Your task to perform on an android device: Show me popular games on the Play Store Image 0: 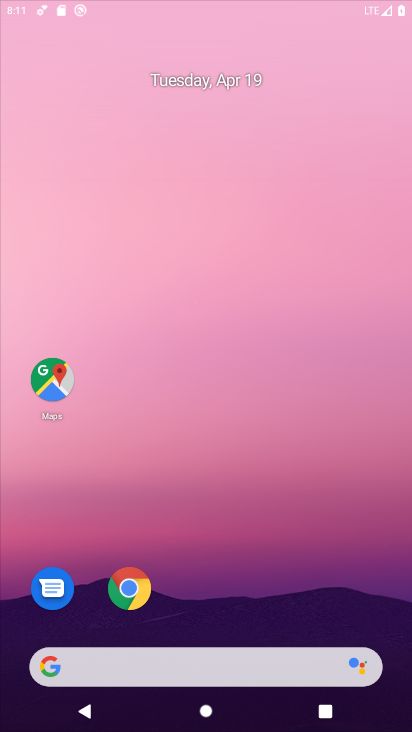
Step 0: drag from (199, 583) to (185, 4)
Your task to perform on an android device: Show me popular games on the Play Store Image 1: 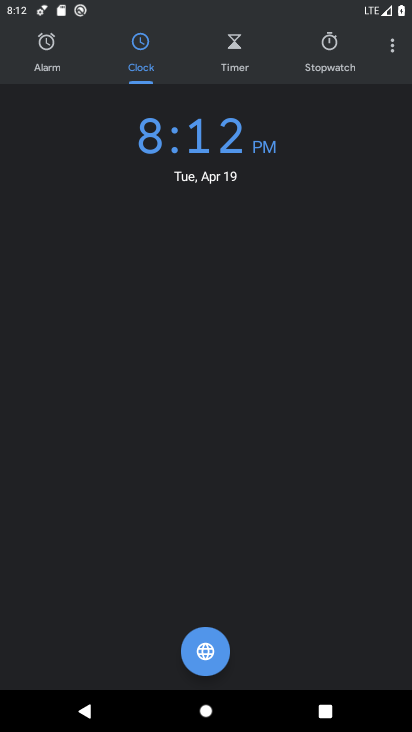
Step 1: press home button
Your task to perform on an android device: Show me popular games on the Play Store Image 2: 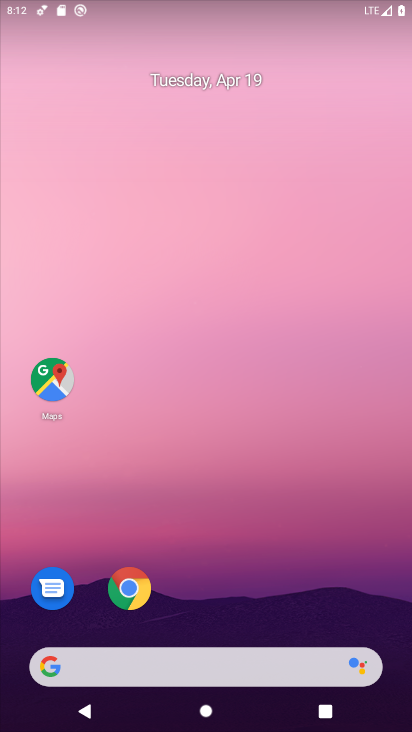
Step 2: drag from (214, 482) to (211, 107)
Your task to perform on an android device: Show me popular games on the Play Store Image 3: 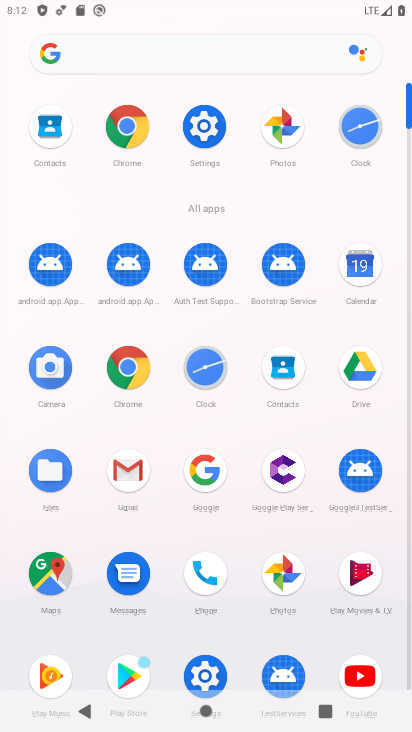
Step 3: click (122, 671)
Your task to perform on an android device: Show me popular games on the Play Store Image 4: 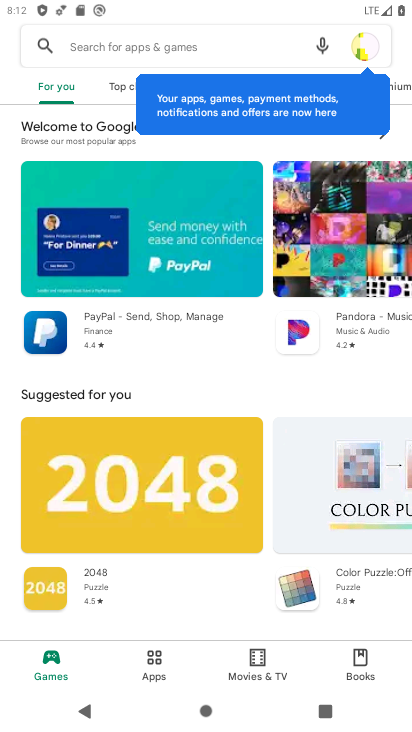
Step 4: drag from (154, 520) to (165, 115)
Your task to perform on an android device: Show me popular games on the Play Store Image 5: 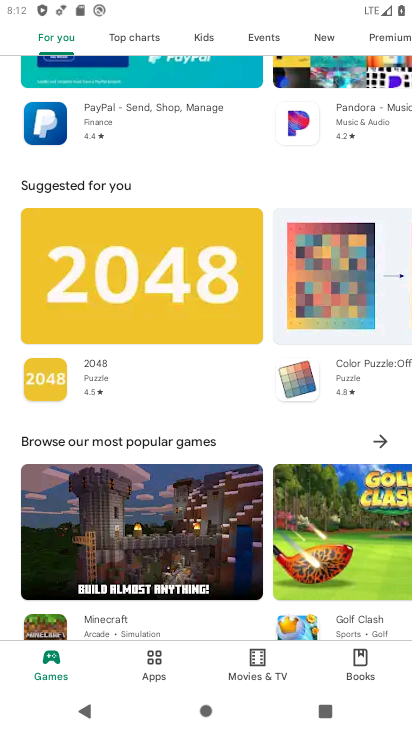
Step 5: click (369, 441)
Your task to perform on an android device: Show me popular games on the Play Store Image 6: 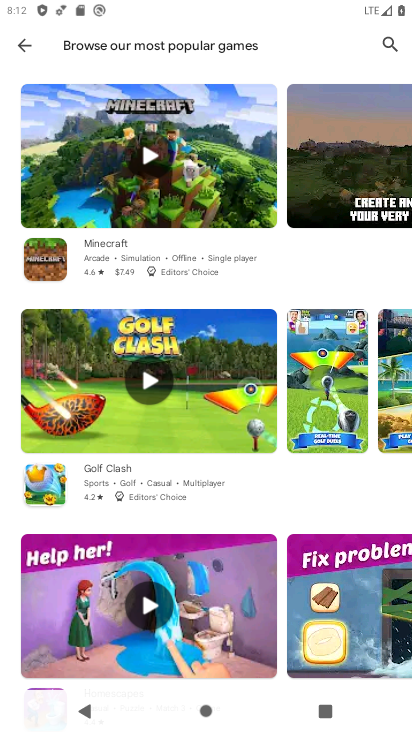
Step 6: task complete